Your task to perform on an android device: Reach out to 'tau.irisbrennan.1654798856749@gmail.com', CC: 'tau.maisiebrenna.1654798856750@gmail.com' with subject: 'Test email' and body: 'I think we need to talk.' Image 0: 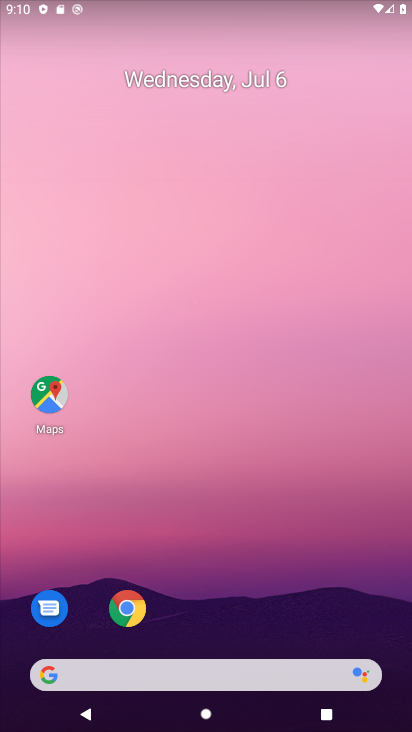
Step 0: drag from (301, 575) to (365, 23)
Your task to perform on an android device: Reach out to 'tau.irisbrennan.1654798856749@gmail.com', CC: 'tau.maisiebrenna.1654798856750@gmail.com' with subject: 'Test email' and body: 'I think we need to talk.' Image 1: 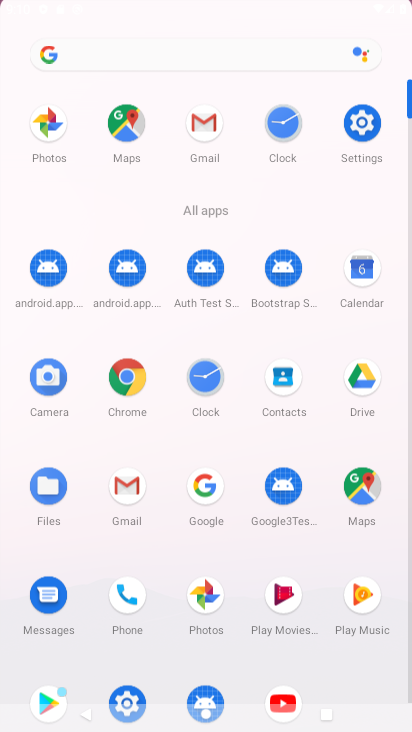
Step 1: drag from (178, 267) to (182, 211)
Your task to perform on an android device: Reach out to 'tau.irisbrennan.1654798856749@gmail.com', CC: 'tau.maisiebrenna.1654798856750@gmail.com' with subject: 'Test email' and body: 'I think we need to talk.' Image 2: 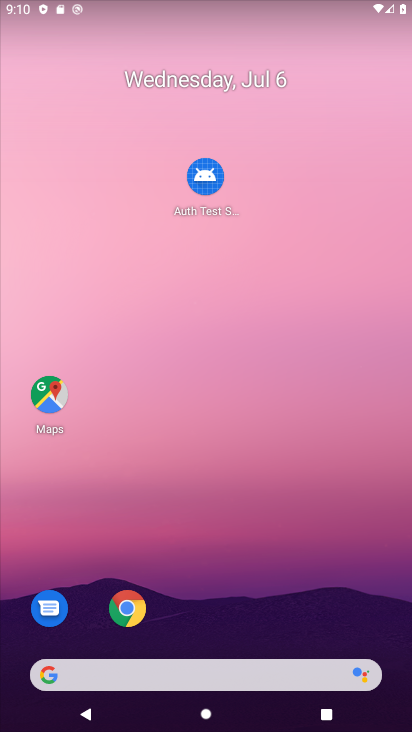
Step 2: drag from (247, 573) to (244, 37)
Your task to perform on an android device: Reach out to 'tau.irisbrennan.1654798856749@gmail.com', CC: 'tau.maisiebrenna.1654798856750@gmail.com' with subject: 'Test email' and body: 'I think we need to talk.' Image 3: 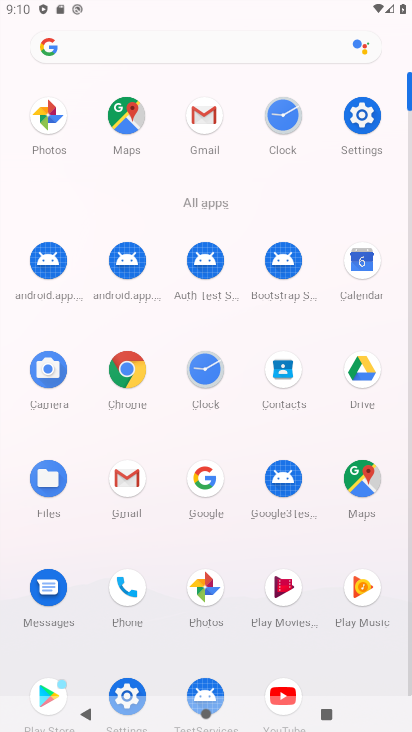
Step 3: click (203, 105)
Your task to perform on an android device: Reach out to 'tau.irisbrennan.1654798856749@gmail.com', CC: 'tau.maisiebrenna.1654798856750@gmail.com' with subject: 'Test email' and body: 'I think we need to talk.' Image 4: 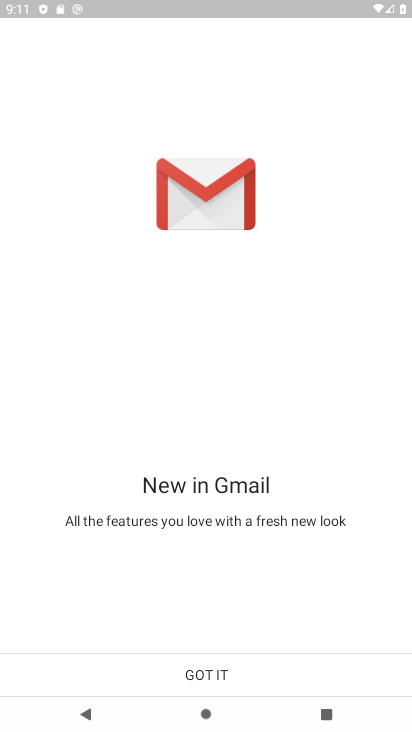
Step 4: click (254, 667)
Your task to perform on an android device: Reach out to 'tau.irisbrennan.1654798856749@gmail.com', CC: 'tau.maisiebrenna.1654798856750@gmail.com' with subject: 'Test email' and body: 'I think we need to talk.' Image 5: 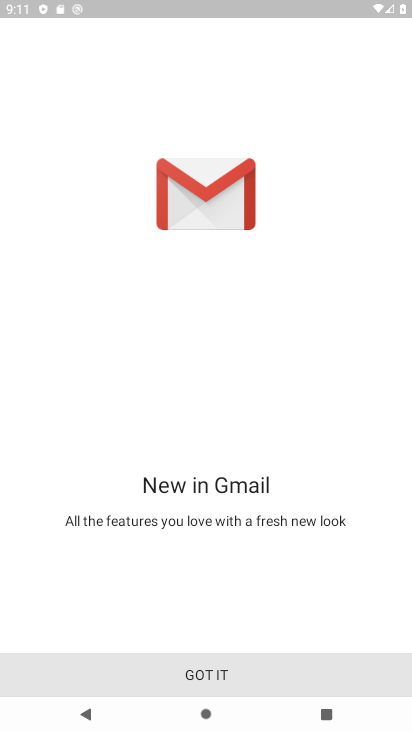
Step 5: click (254, 667)
Your task to perform on an android device: Reach out to 'tau.irisbrennan.1654798856749@gmail.com', CC: 'tau.maisiebrenna.1654798856750@gmail.com' with subject: 'Test email' and body: 'I think we need to talk.' Image 6: 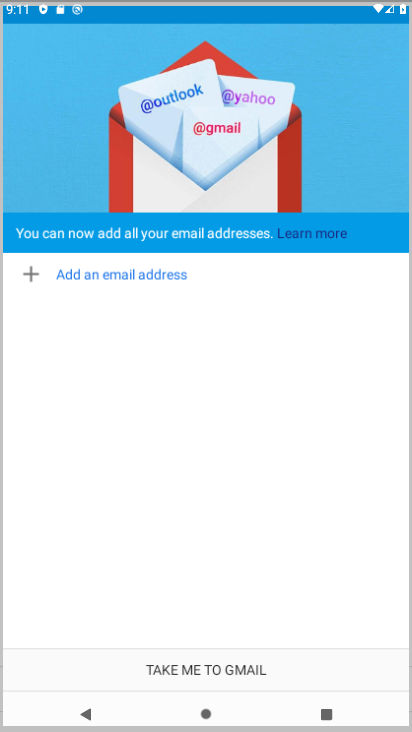
Step 6: click (254, 667)
Your task to perform on an android device: Reach out to 'tau.irisbrennan.1654798856749@gmail.com', CC: 'tau.maisiebrenna.1654798856750@gmail.com' with subject: 'Test email' and body: 'I think we need to talk.' Image 7: 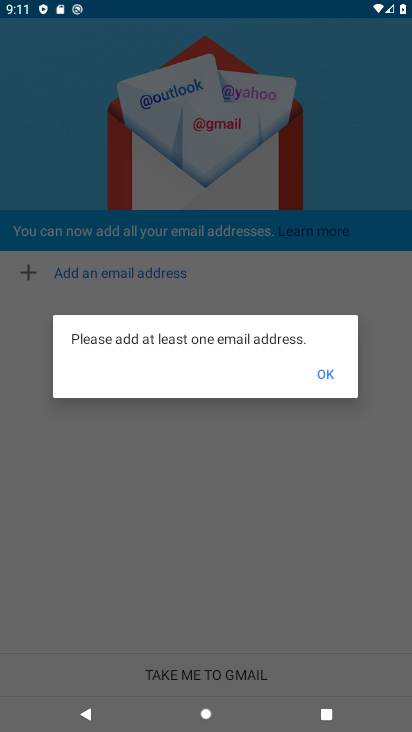
Step 7: click (254, 667)
Your task to perform on an android device: Reach out to 'tau.irisbrennan.1654798856749@gmail.com', CC: 'tau.maisiebrenna.1654798856750@gmail.com' with subject: 'Test email' and body: 'I think we need to talk.' Image 8: 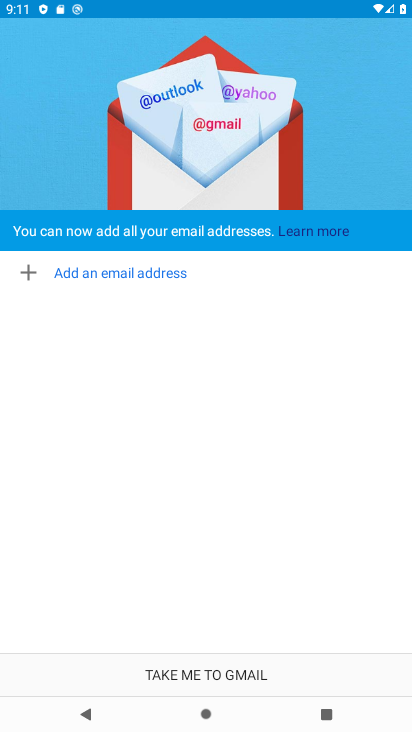
Step 8: click (160, 672)
Your task to perform on an android device: Reach out to 'tau.irisbrennan.1654798856749@gmail.com', CC: 'tau.maisiebrenna.1654798856750@gmail.com' with subject: 'Test email' and body: 'I think we need to talk.' Image 9: 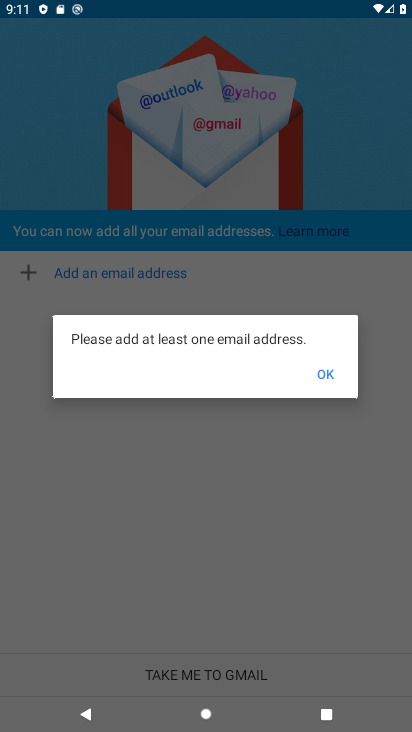
Step 9: task complete